Your task to perform on an android device: Go to calendar. Show me events next week Image 0: 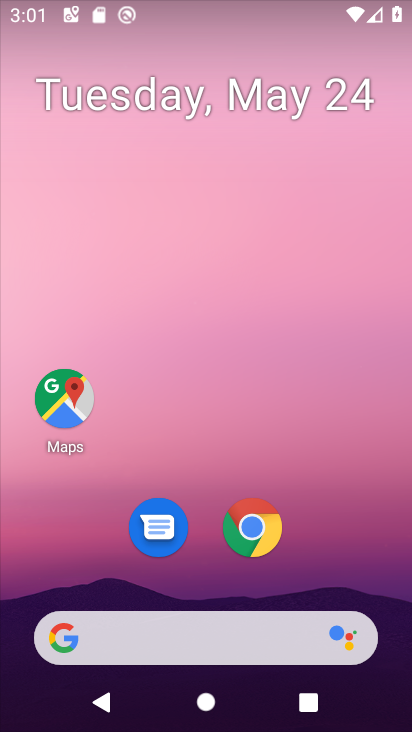
Step 0: drag from (345, 586) to (301, 35)
Your task to perform on an android device: Go to calendar. Show me events next week Image 1: 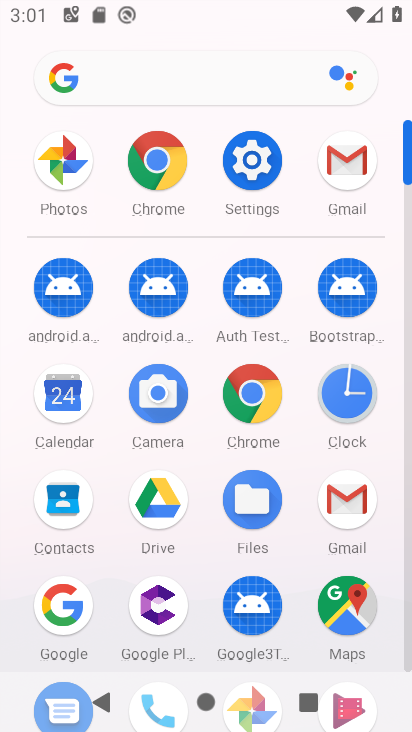
Step 1: click (65, 397)
Your task to perform on an android device: Go to calendar. Show me events next week Image 2: 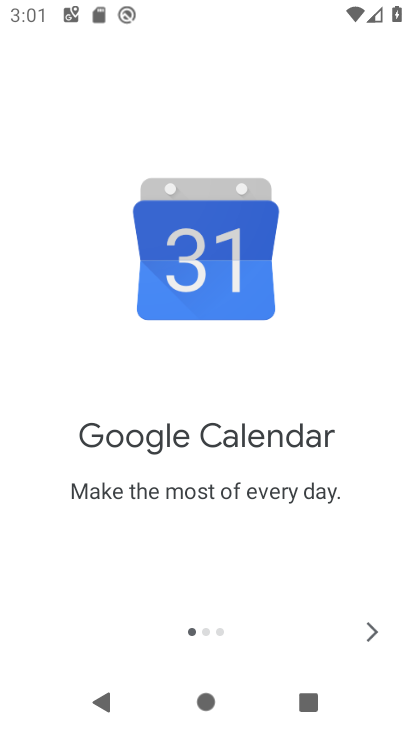
Step 2: click (369, 635)
Your task to perform on an android device: Go to calendar. Show me events next week Image 3: 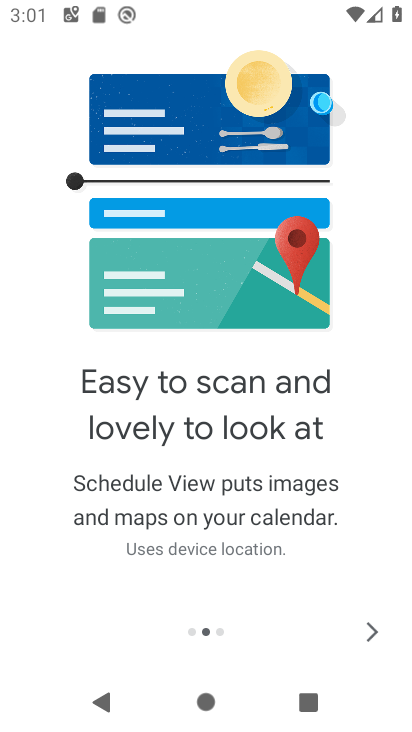
Step 3: click (369, 635)
Your task to perform on an android device: Go to calendar. Show me events next week Image 4: 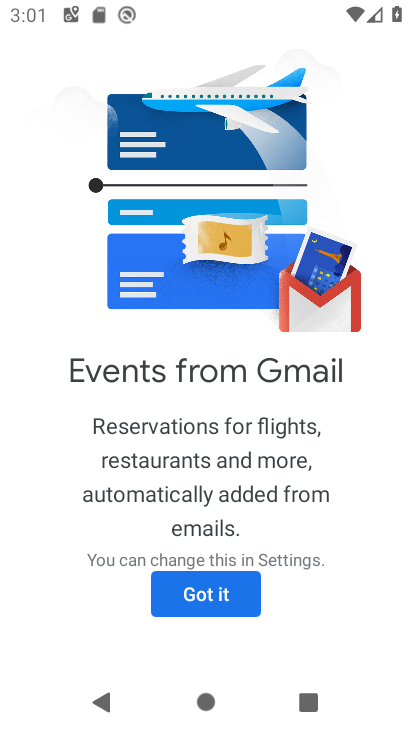
Step 4: click (214, 594)
Your task to perform on an android device: Go to calendar. Show me events next week Image 5: 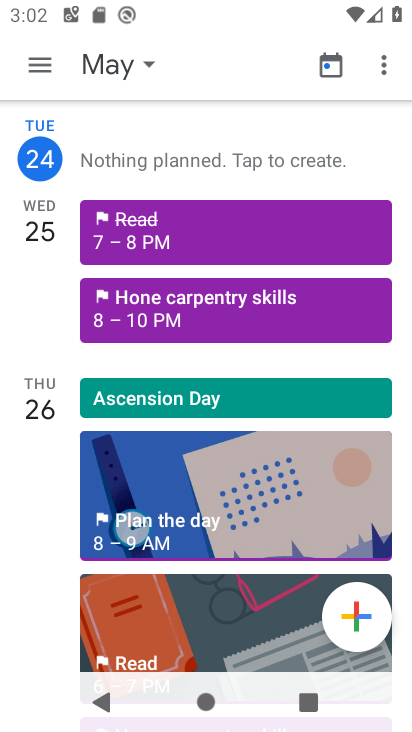
Step 5: click (39, 67)
Your task to perform on an android device: Go to calendar. Show me events next week Image 6: 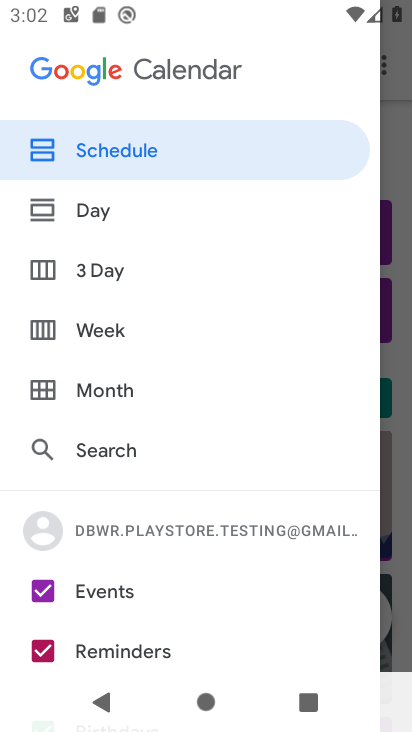
Step 6: drag from (166, 553) to (155, 323)
Your task to perform on an android device: Go to calendar. Show me events next week Image 7: 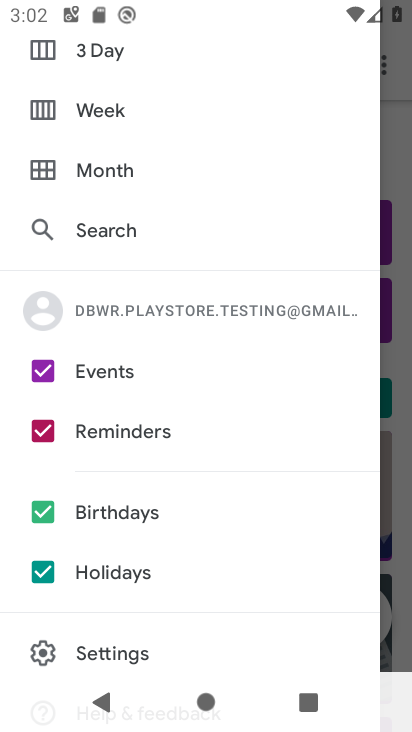
Step 7: click (45, 435)
Your task to perform on an android device: Go to calendar. Show me events next week Image 8: 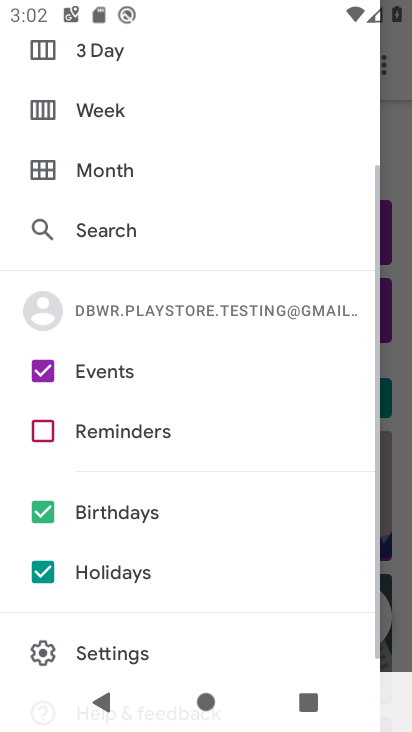
Step 8: click (41, 509)
Your task to perform on an android device: Go to calendar. Show me events next week Image 9: 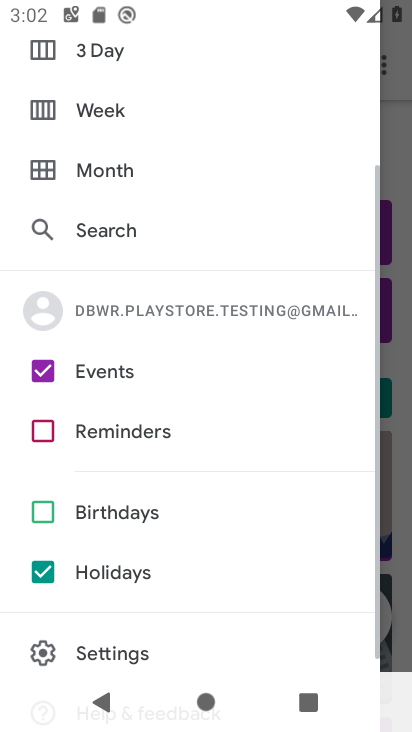
Step 9: click (37, 569)
Your task to perform on an android device: Go to calendar. Show me events next week Image 10: 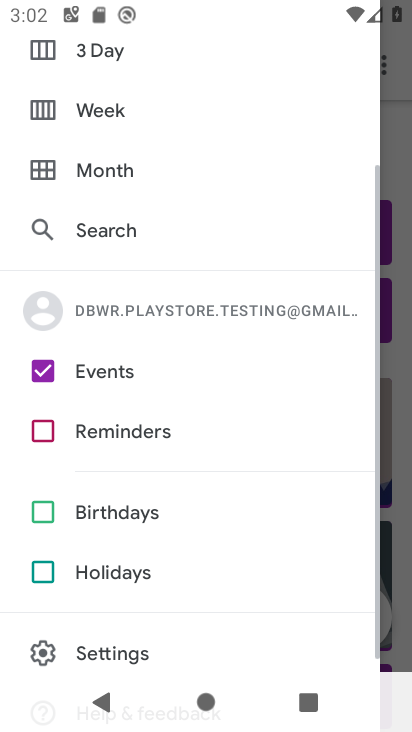
Step 10: drag from (197, 511) to (200, 621)
Your task to perform on an android device: Go to calendar. Show me events next week Image 11: 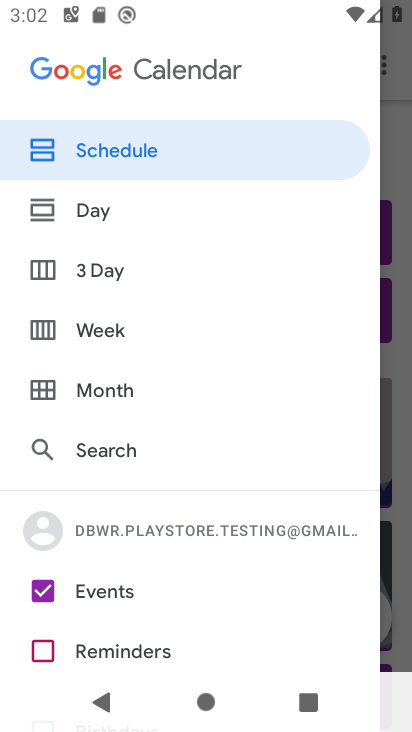
Step 11: click (45, 329)
Your task to perform on an android device: Go to calendar. Show me events next week Image 12: 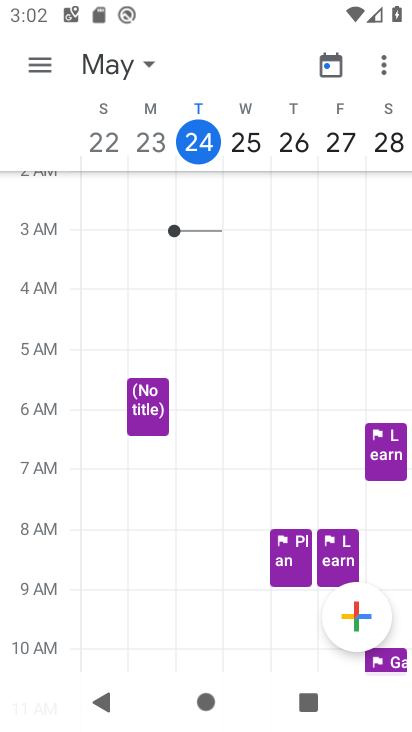
Step 12: task complete